Your task to perform on an android device: toggle notifications settings in the gmail app Image 0: 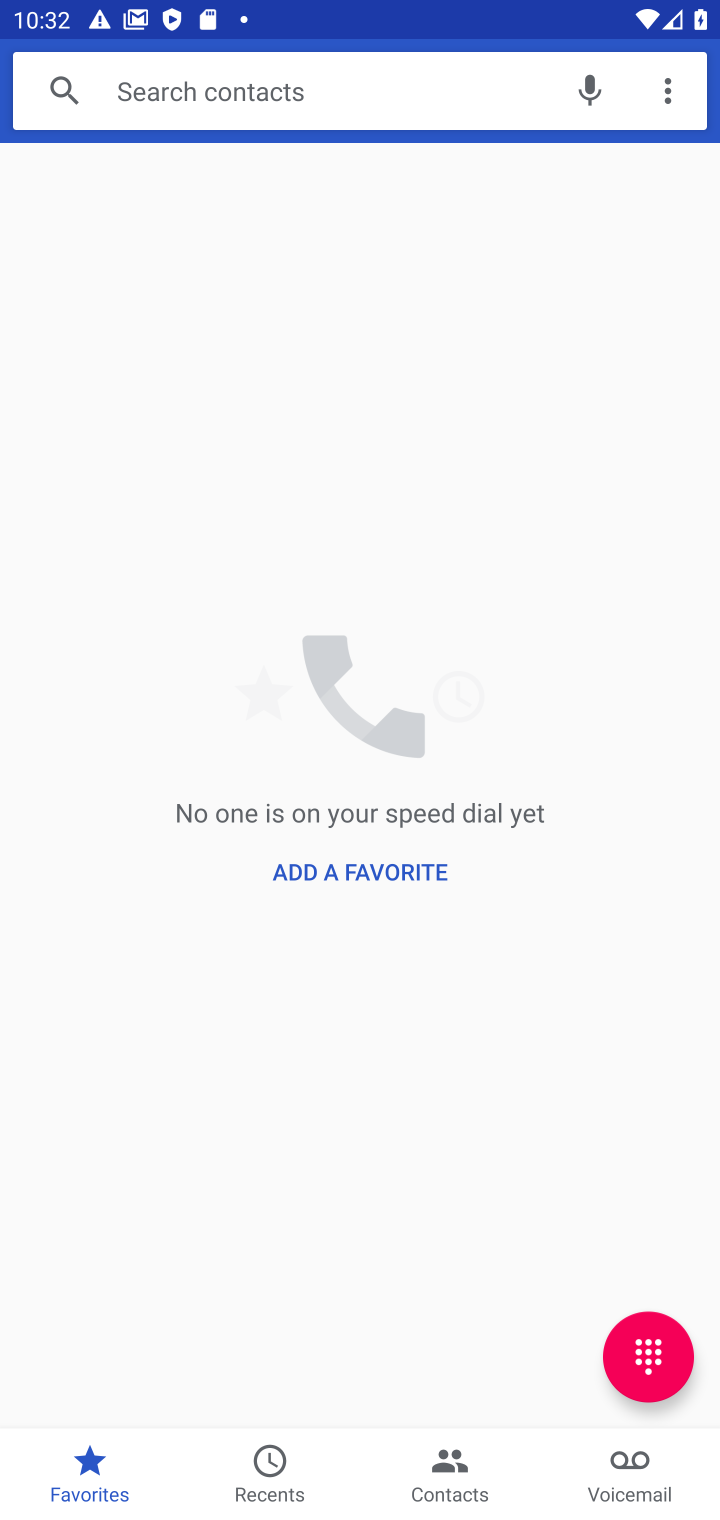
Step 0: press home button
Your task to perform on an android device: toggle notifications settings in the gmail app Image 1: 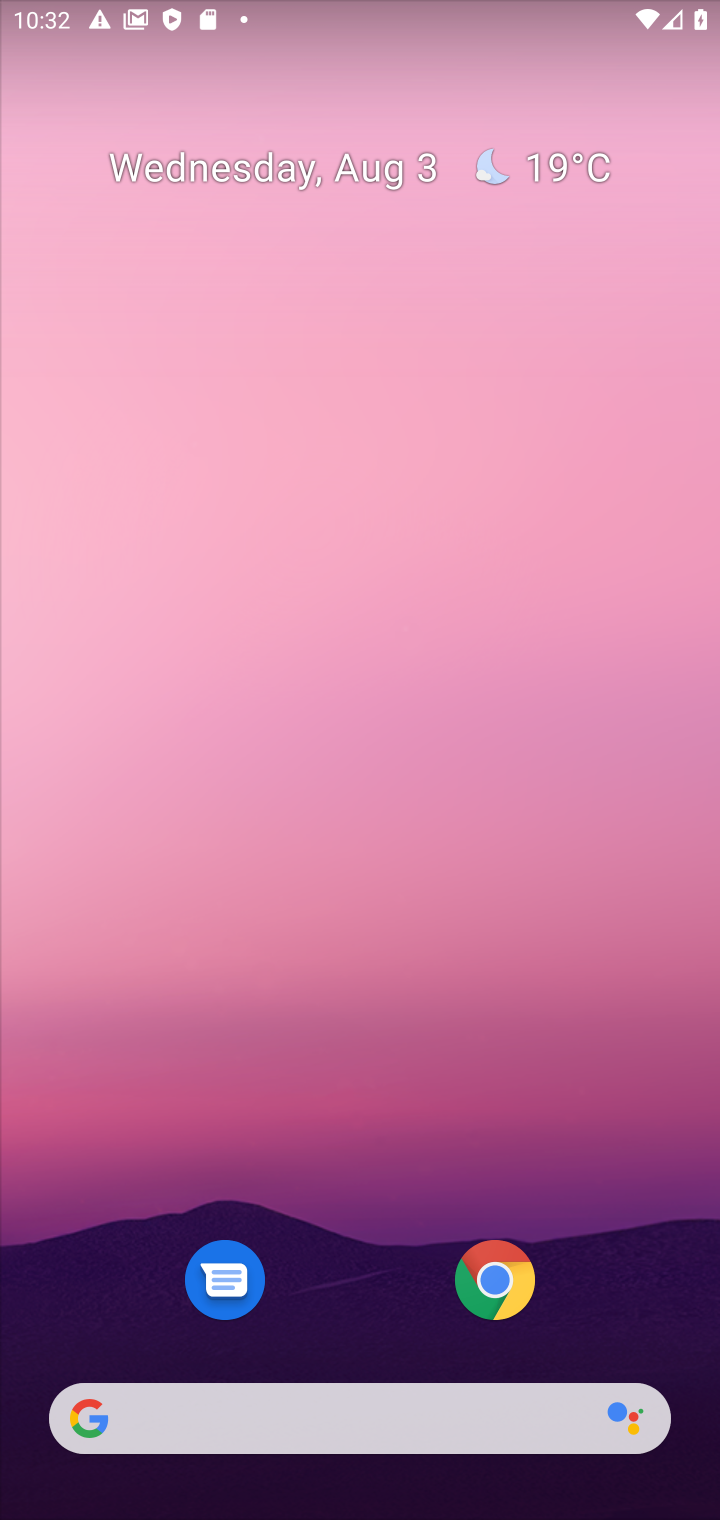
Step 1: drag from (589, 1060) to (663, 406)
Your task to perform on an android device: toggle notifications settings in the gmail app Image 2: 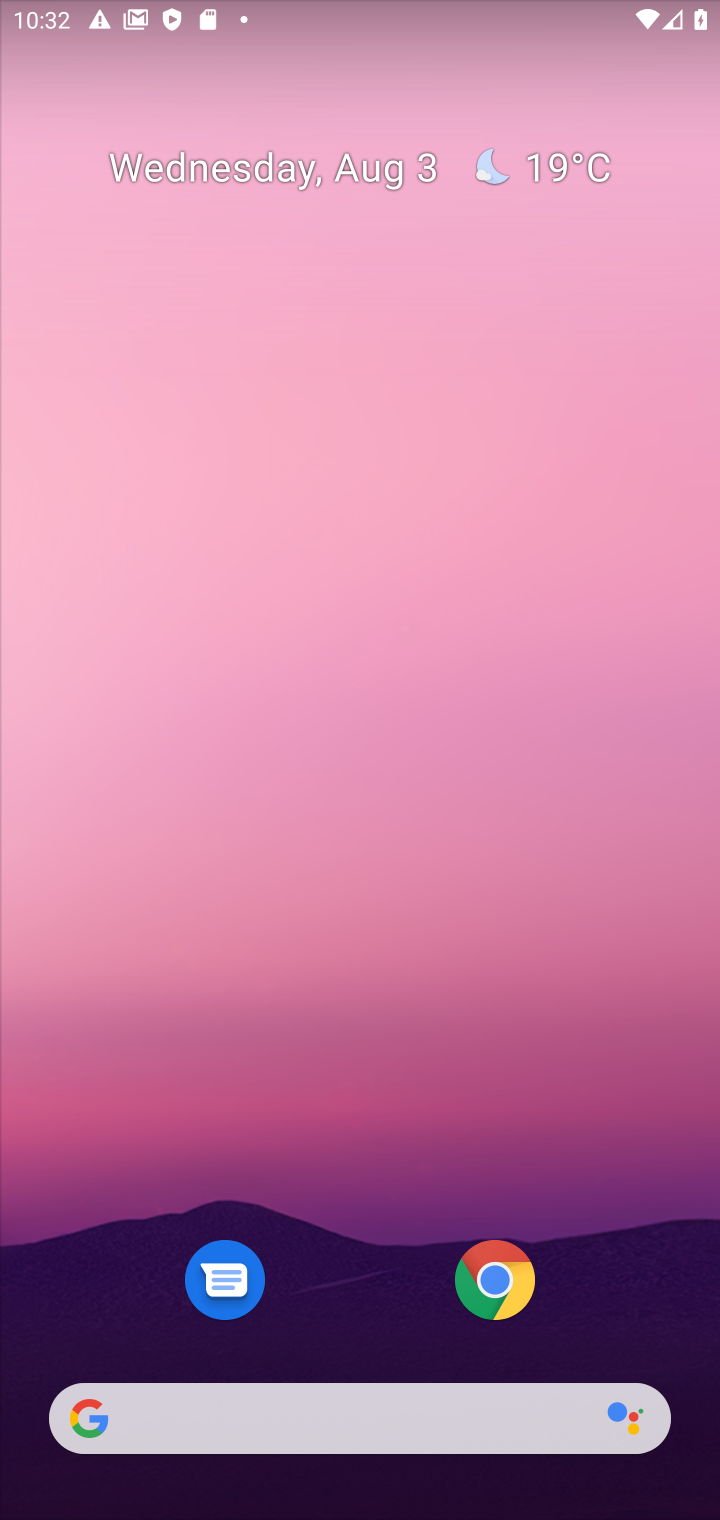
Step 2: drag from (274, 1151) to (348, 361)
Your task to perform on an android device: toggle notifications settings in the gmail app Image 3: 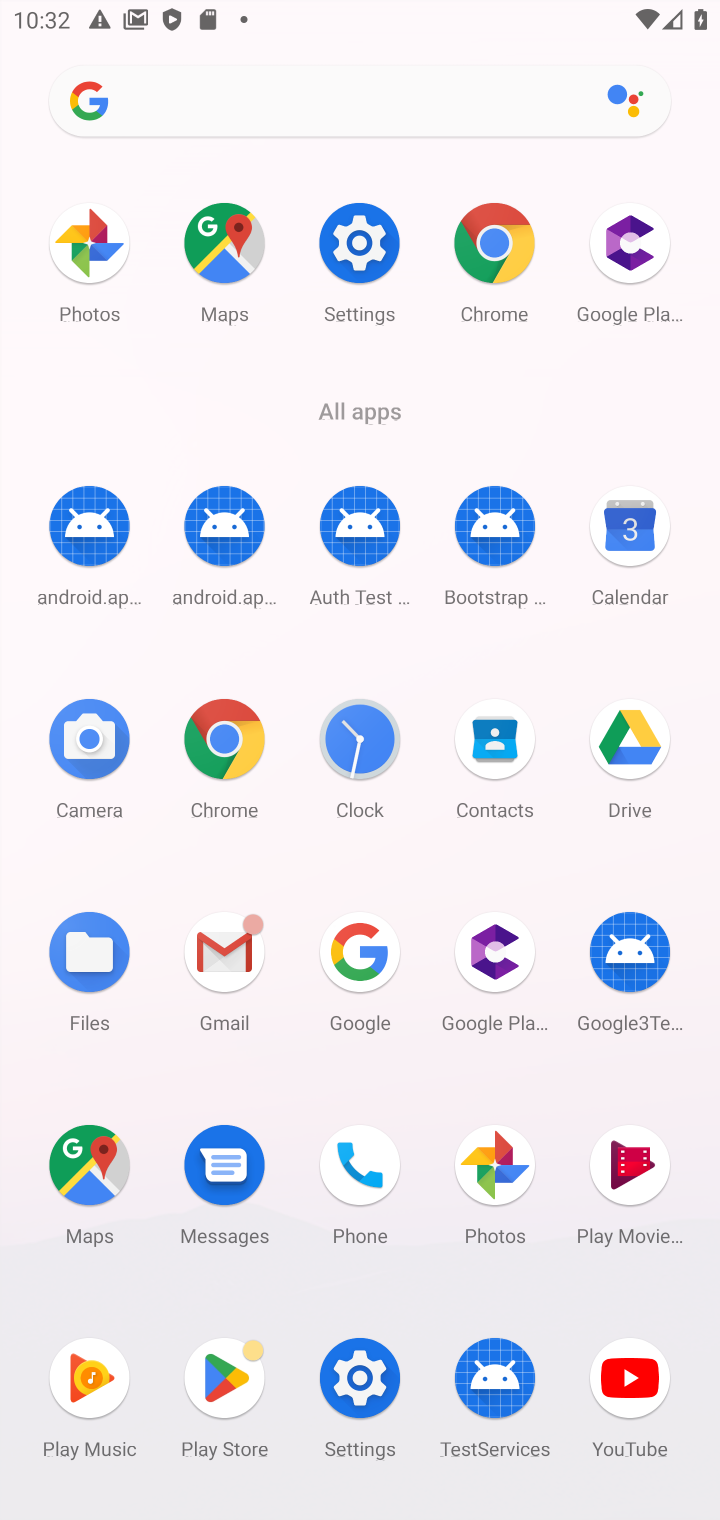
Step 3: click (217, 954)
Your task to perform on an android device: toggle notifications settings in the gmail app Image 4: 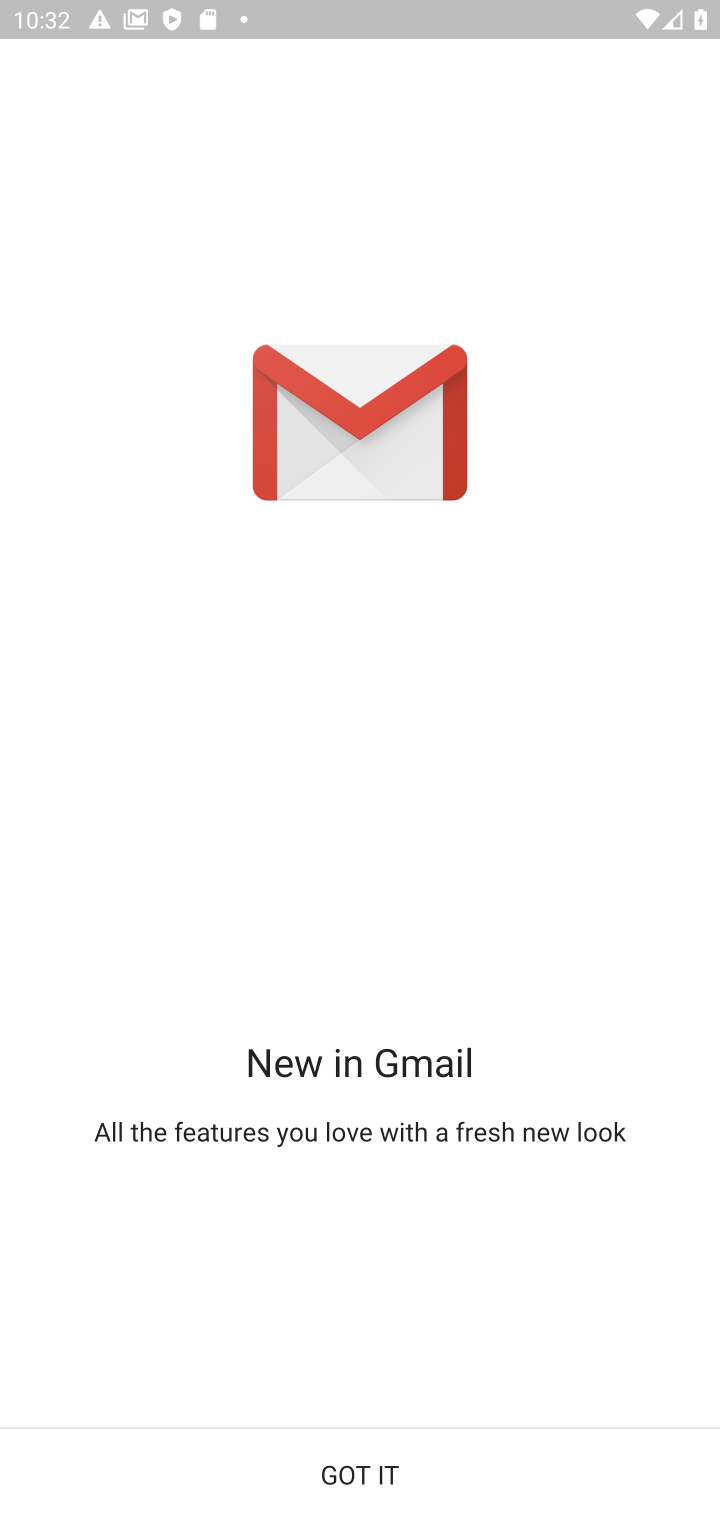
Step 4: click (344, 1476)
Your task to perform on an android device: toggle notifications settings in the gmail app Image 5: 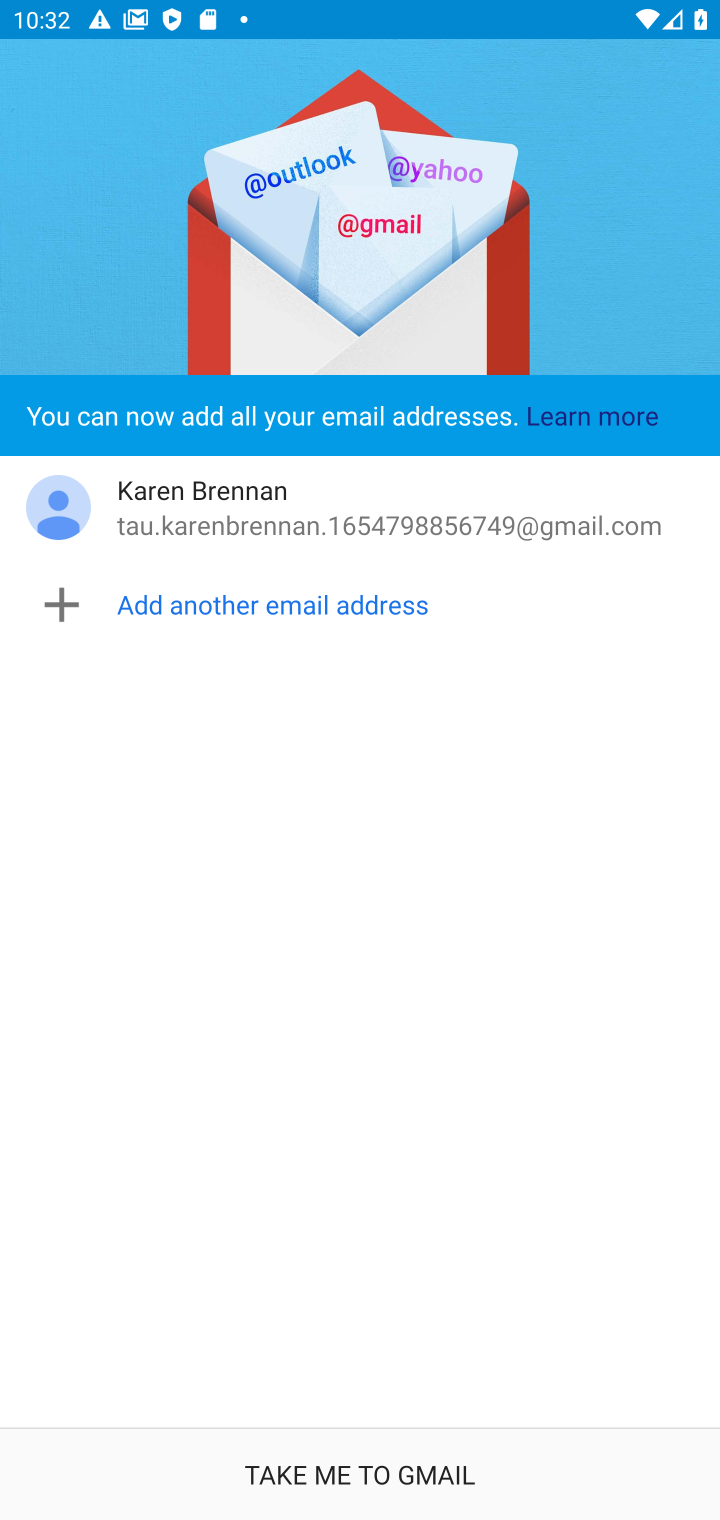
Step 5: click (344, 1476)
Your task to perform on an android device: toggle notifications settings in the gmail app Image 6: 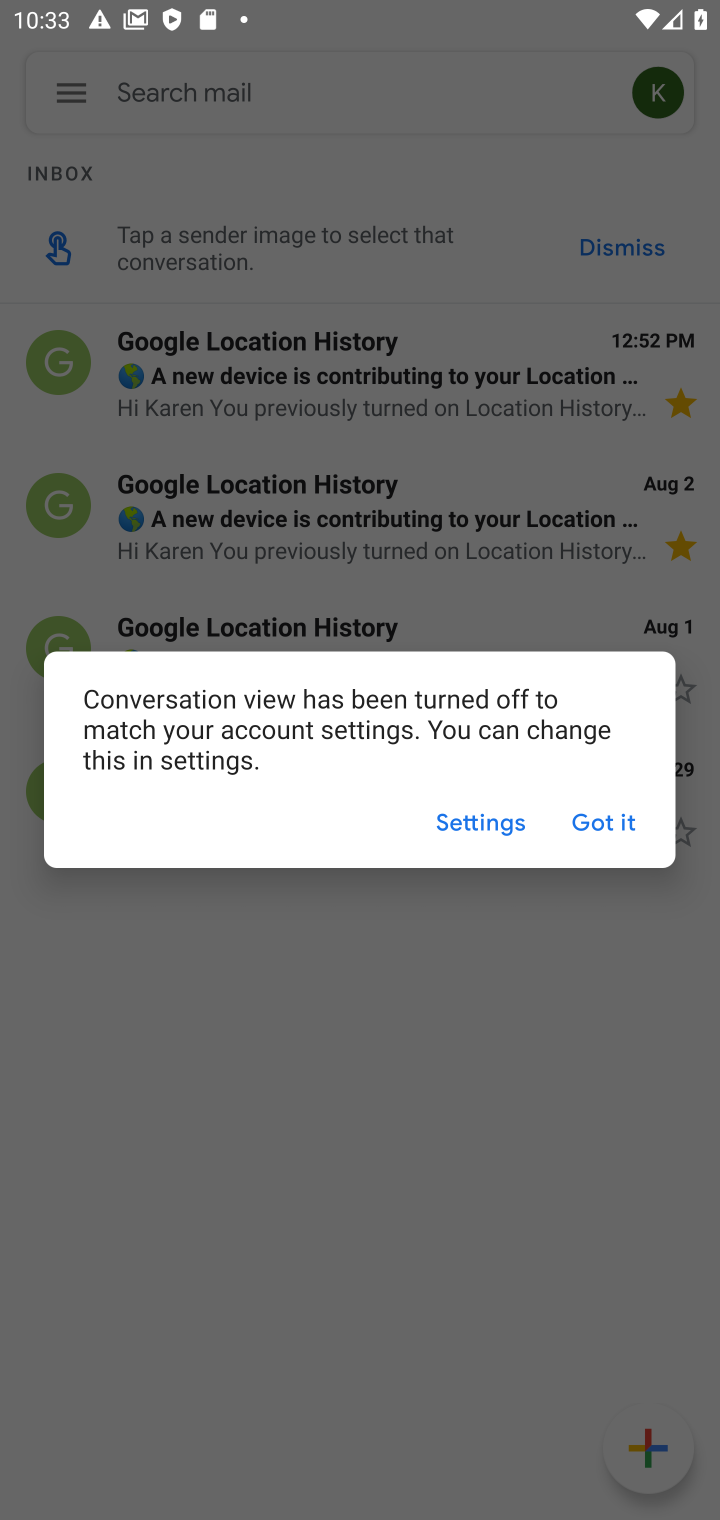
Step 6: click (610, 831)
Your task to perform on an android device: toggle notifications settings in the gmail app Image 7: 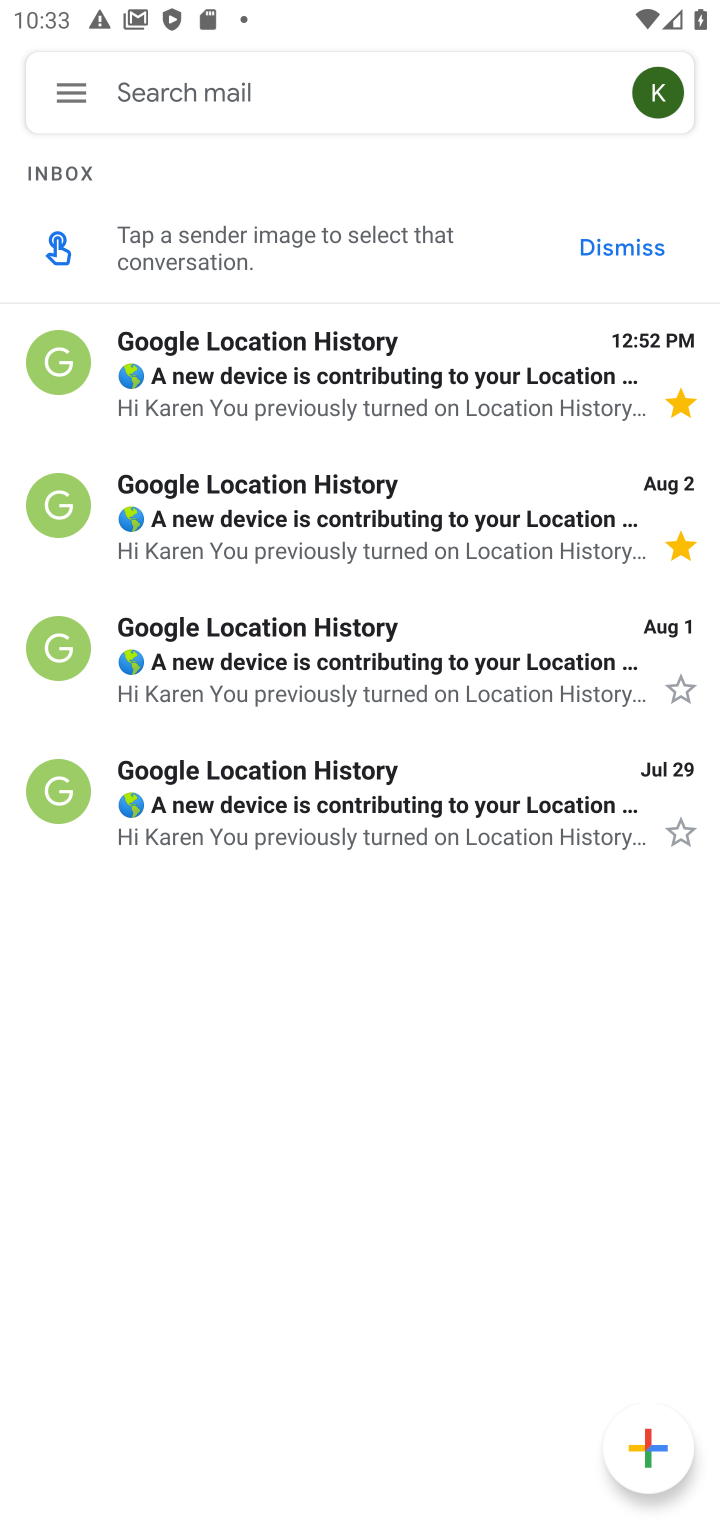
Step 7: task complete